Your task to perform on an android device: empty trash in google photos Image 0: 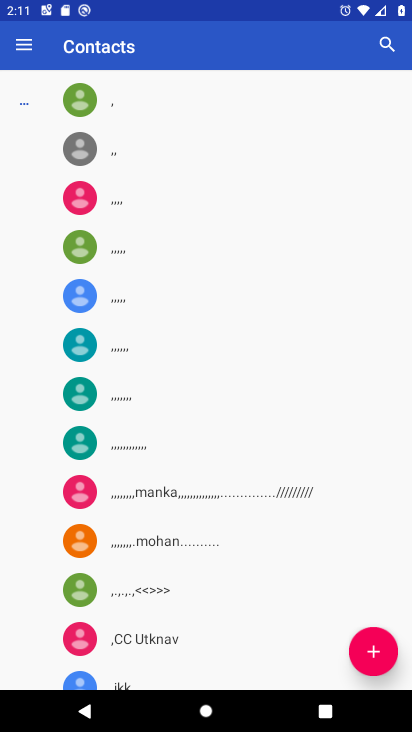
Step 0: press home button
Your task to perform on an android device: empty trash in google photos Image 1: 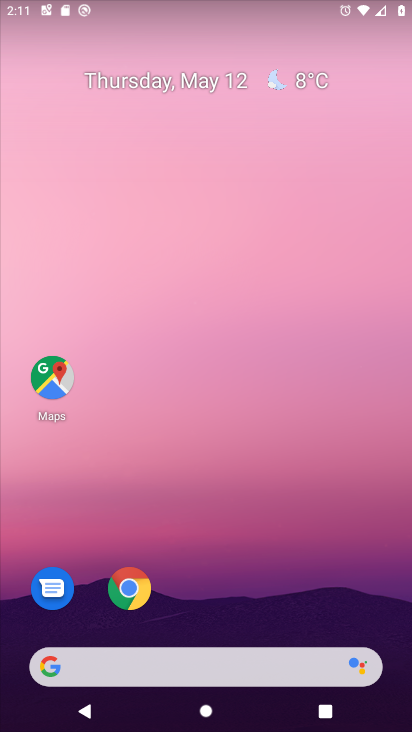
Step 1: drag from (313, 505) to (303, 60)
Your task to perform on an android device: empty trash in google photos Image 2: 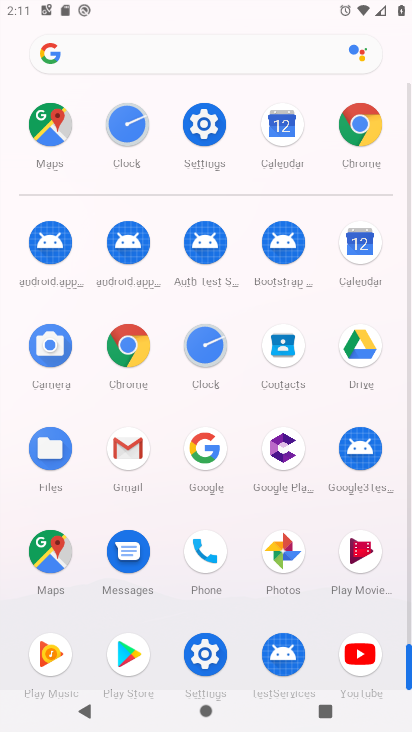
Step 2: click (273, 558)
Your task to perform on an android device: empty trash in google photos Image 3: 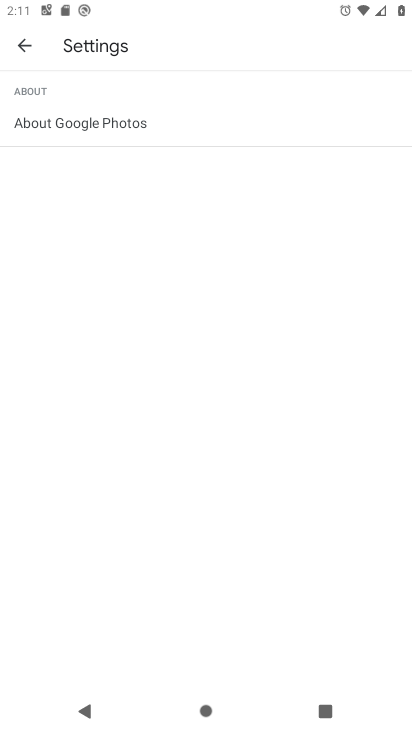
Step 3: click (31, 43)
Your task to perform on an android device: empty trash in google photos Image 4: 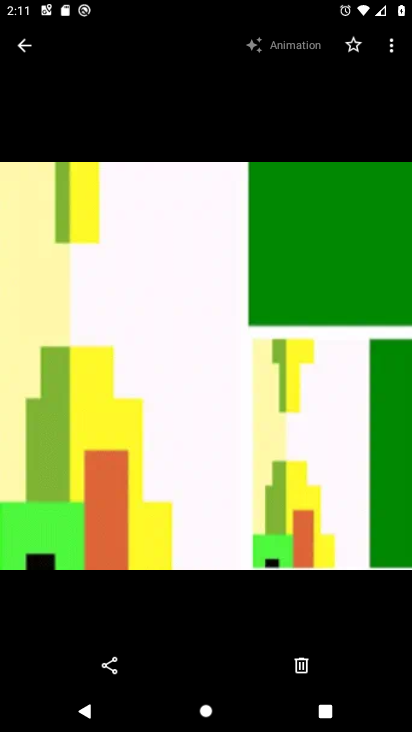
Step 4: click (83, 704)
Your task to perform on an android device: empty trash in google photos Image 5: 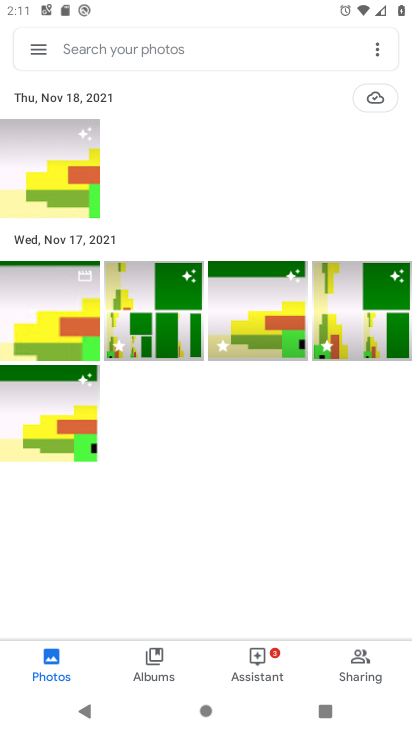
Step 5: click (44, 46)
Your task to perform on an android device: empty trash in google photos Image 6: 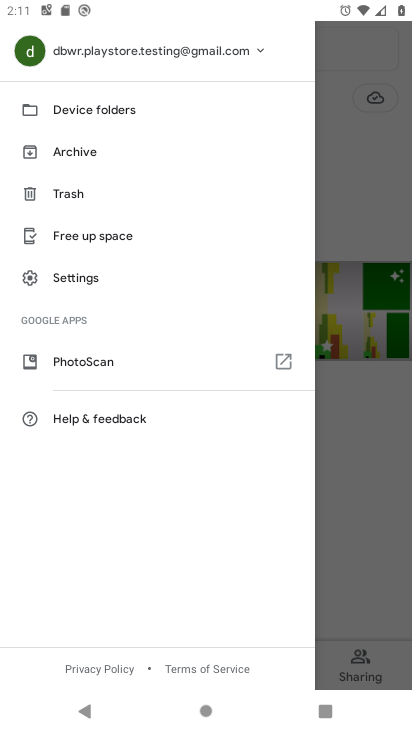
Step 6: click (58, 193)
Your task to perform on an android device: empty trash in google photos Image 7: 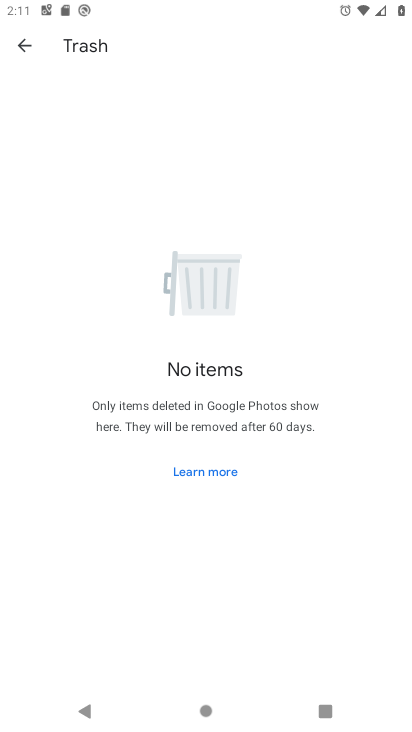
Step 7: click (213, 475)
Your task to perform on an android device: empty trash in google photos Image 8: 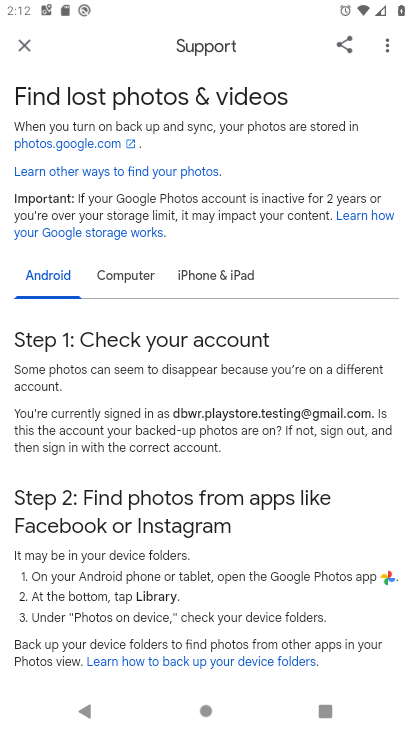
Step 8: task complete